Your task to perform on an android device: Go to internet settings Image 0: 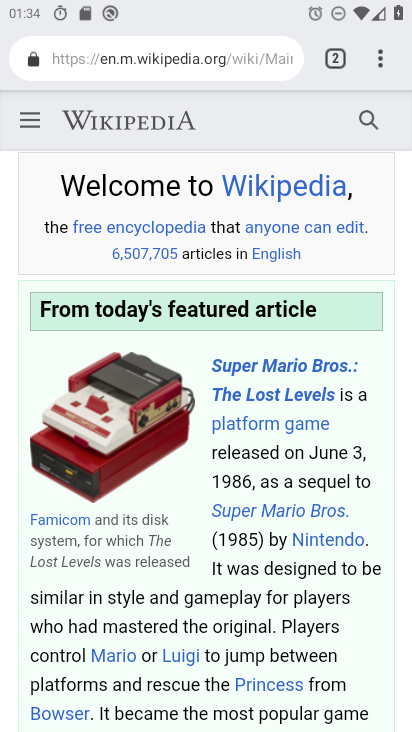
Step 0: press home button
Your task to perform on an android device: Go to internet settings Image 1: 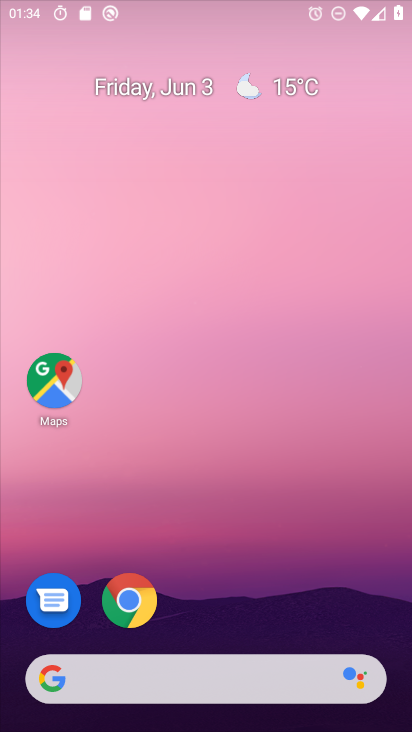
Step 1: drag from (243, 576) to (224, 86)
Your task to perform on an android device: Go to internet settings Image 2: 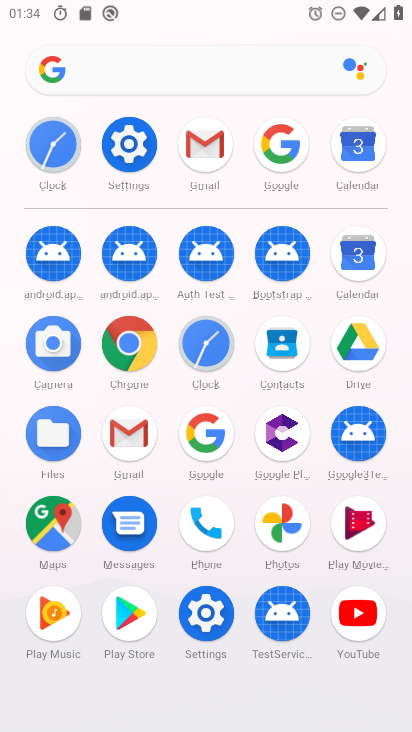
Step 2: click (126, 141)
Your task to perform on an android device: Go to internet settings Image 3: 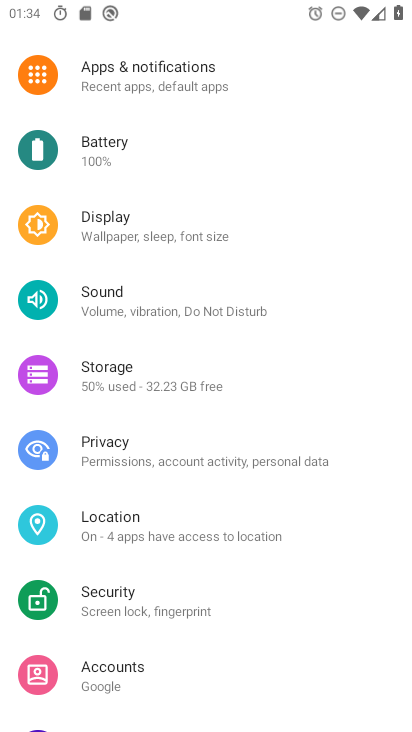
Step 3: drag from (173, 100) to (245, 660)
Your task to perform on an android device: Go to internet settings Image 4: 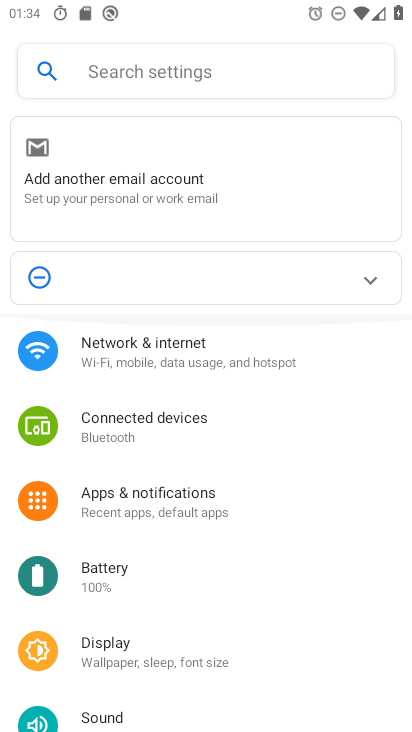
Step 4: click (180, 343)
Your task to perform on an android device: Go to internet settings Image 5: 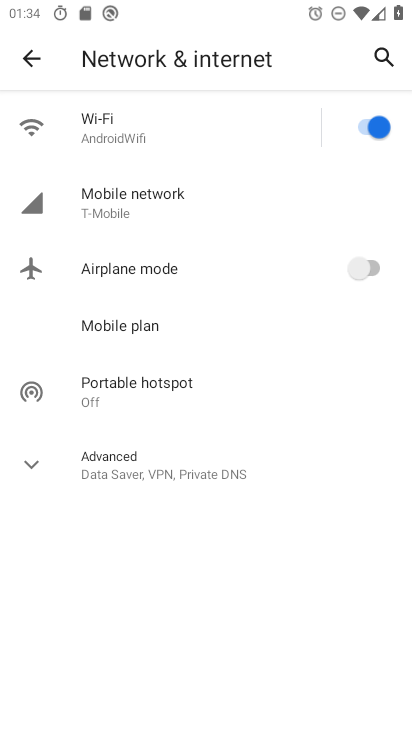
Step 5: click (153, 119)
Your task to perform on an android device: Go to internet settings Image 6: 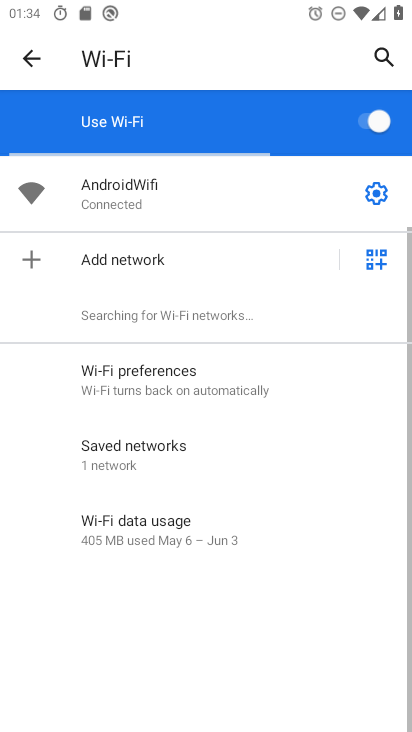
Step 6: click (152, 211)
Your task to perform on an android device: Go to internet settings Image 7: 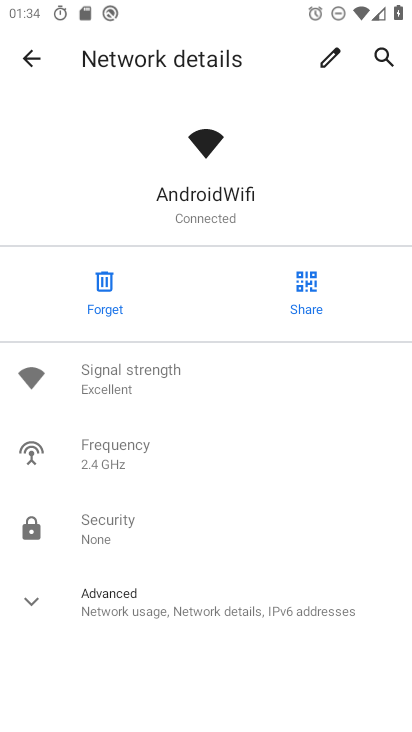
Step 7: task complete